Your task to perform on an android device: Toggle the flashlight Image 0: 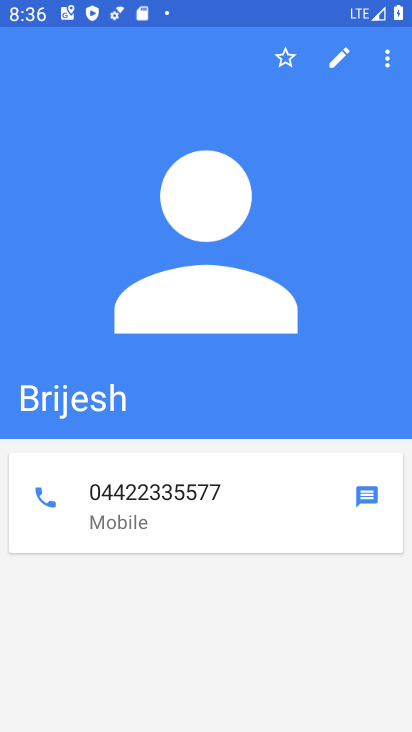
Step 0: press home button
Your task to perform on an android device: Toggle the flashlight Image 1: 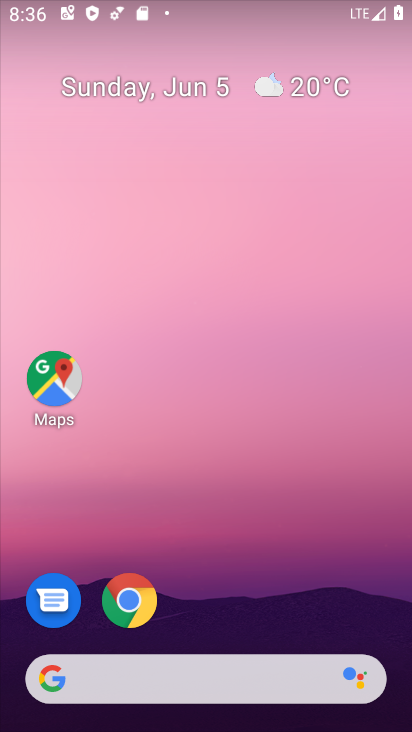
Step 1: drag from (265, 544) to (259, 12)
Your task to perform on an android device: Toggle the flashlight Image 2: 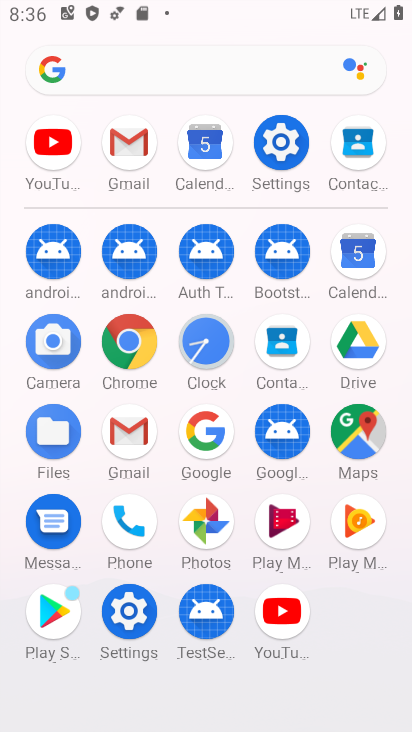
Step 2: click (277, 130)
Your task to perform on an android device: Toggle the flashlight Image 3: 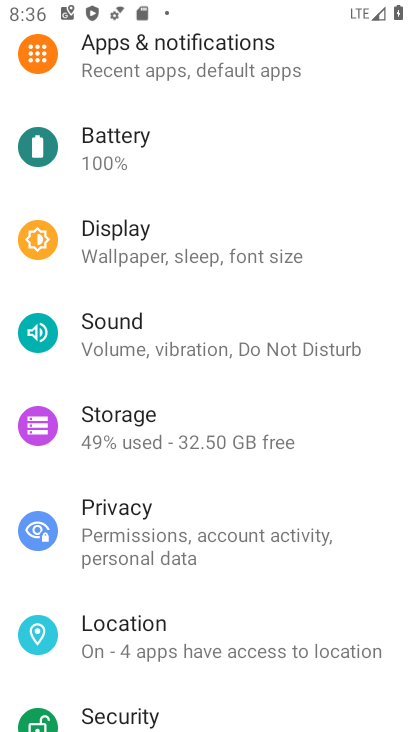
Step 3: drag from (211, 304) to (181, 613)
Your task to perform on an android device: Toggle the flashlight Image 4: 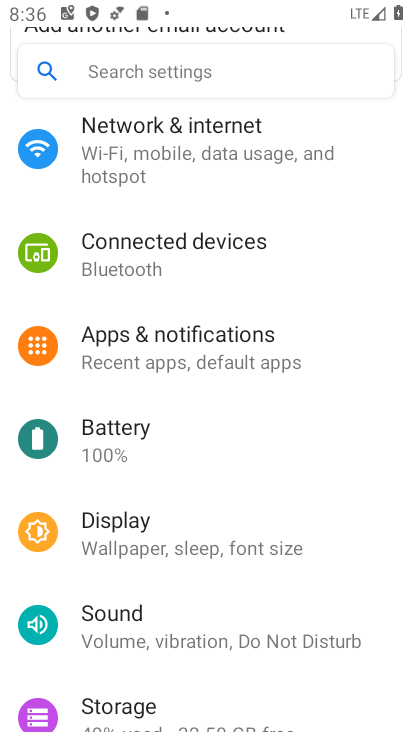
Step 4: drag from (227, 190) to (238, 571)
Your task to perform on an android device: Toggle the flashlight Image 5: 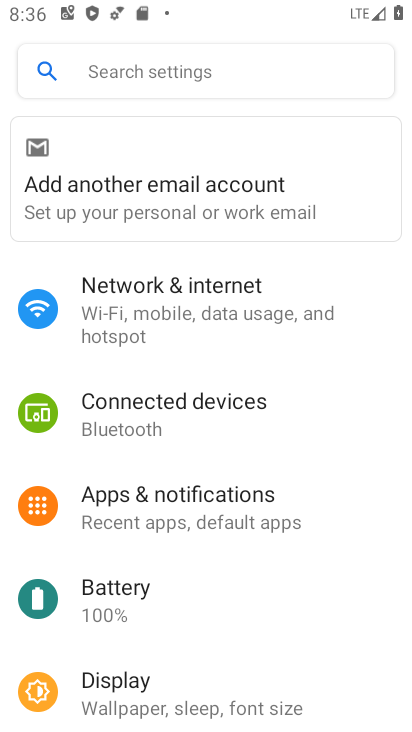
Step 5: click (296, 63)
Your task to perform on an android device: Toggle the flashlight Image 6: 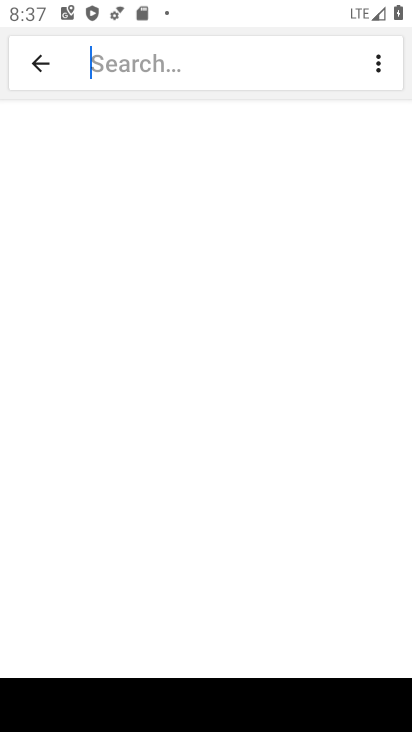
Step 6: type "Flashlight"
Your task to perform on an android device: Toggle the flashlight Image 7: 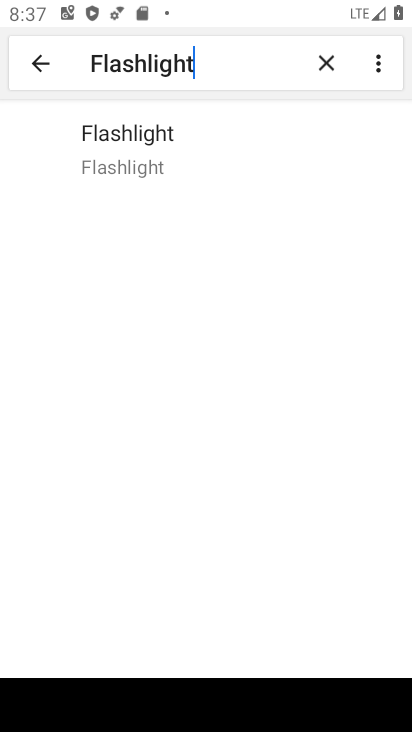
Step 7: click (144, 149)
Your task to perform on an android device: Toggle the flashlight Image 8: 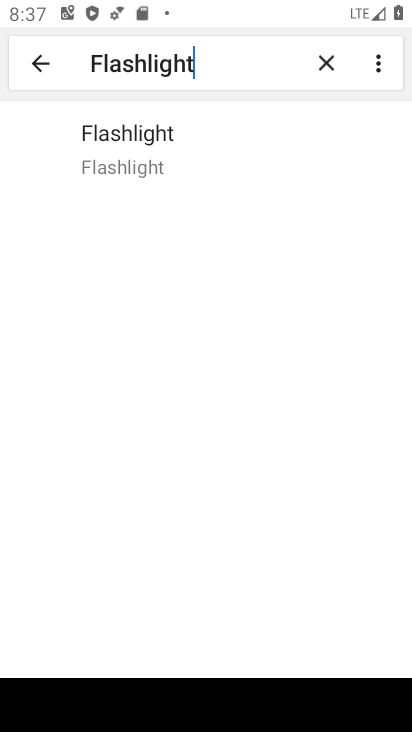
Step 8: click (144, 149)
Your task to perform on an android device: Toggle the flashlight Image 9: 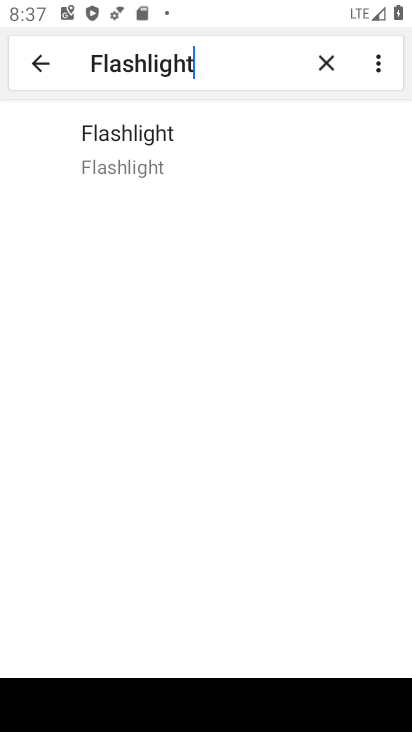
Step 9: task complete